Your task to perform on an android device: Open calendar and show me the first week of next month Image 0: 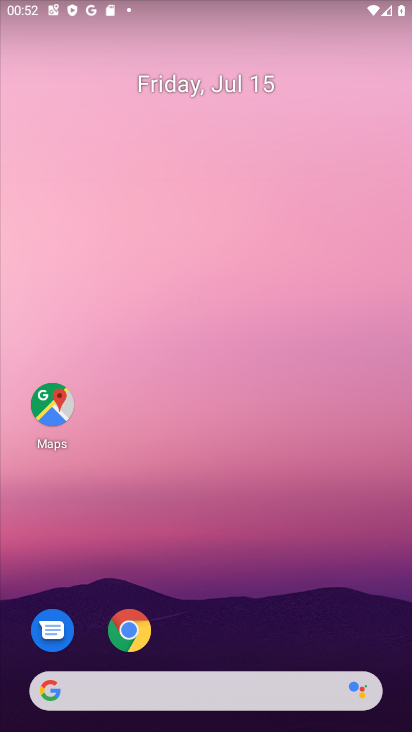
Step 0: drag from (313, 626) to (163, 23)
Your task to perform on an android device: Open calendar and show me the first week of next month Image 1: 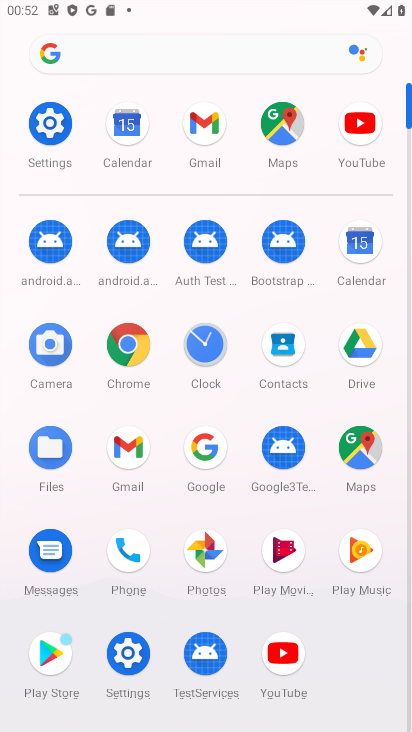
Step 1: click (109, 143)
Your task to perform on an android device: Open calendar and show me the first week of next month Image 2: 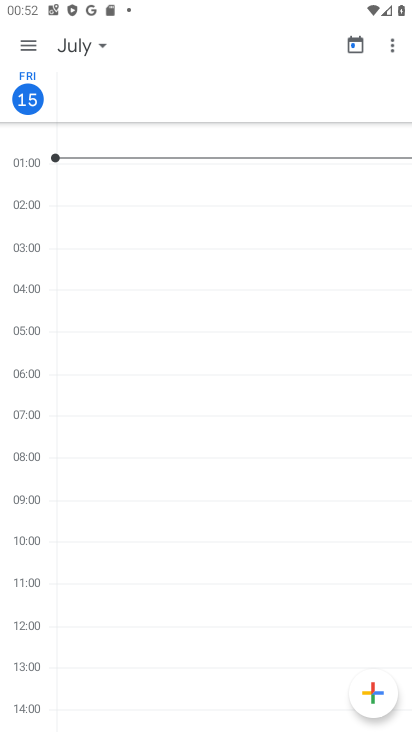
Step 2: task complete